Your task to perform on an android device: all mails in gmail Image 0: 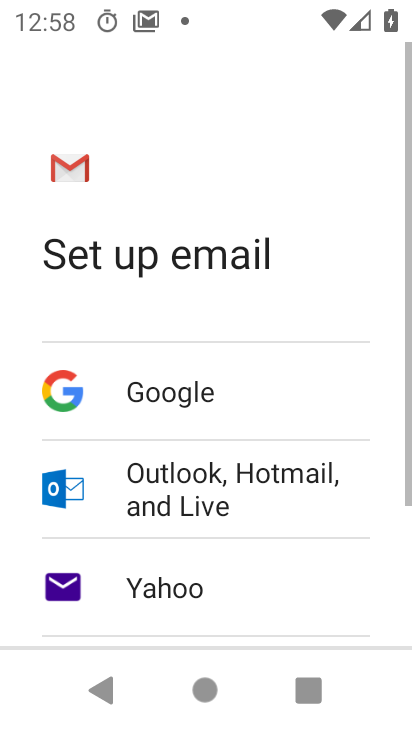
Step 0: press home button
Your task to perform on an android device: all mails in gmail Image 1: 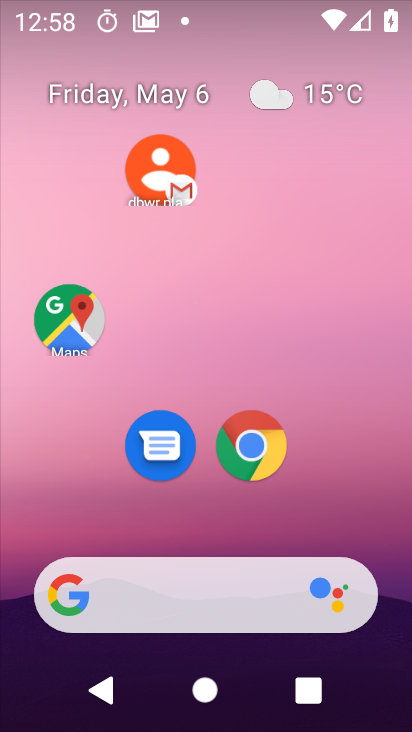
Step 1: drag from (372, 613) to (183, 92)
Your task to perform on an android device: all mails in gmail Image 2: 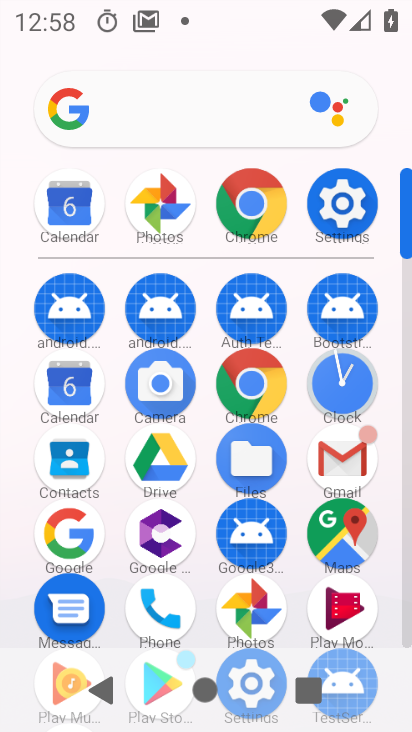
Step 2: click (328, 465)
Your task to perform on an android device: all mails in gmail Image 3: 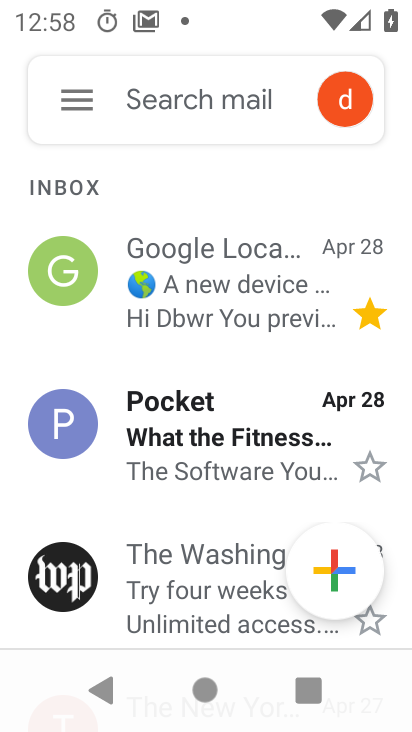
Step 3: click (69, 115)
Your task to perform on an android device: all mails in gmail Image 4: 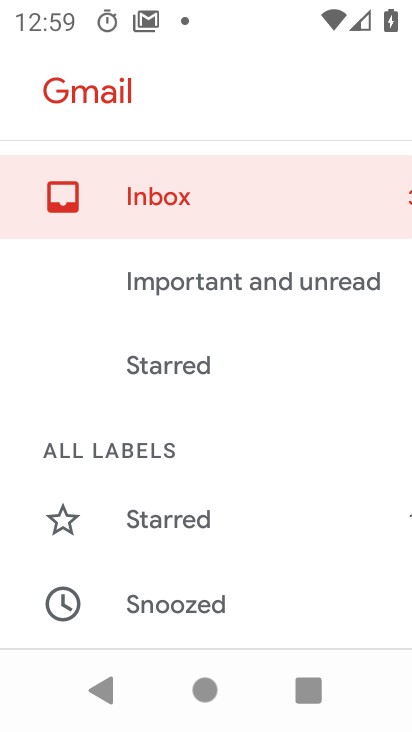
Step 4: drag from (232, 499) to (183, 128)
Your task to perform on an android device: all mails in gmail Image 5: 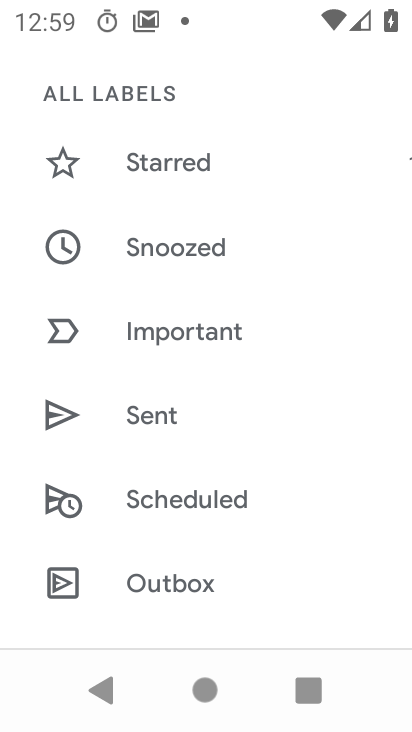
Step 5: drag from (275, 474) to (193, 182)
Your task to perform on an android device: all mails in gmail Image 6: 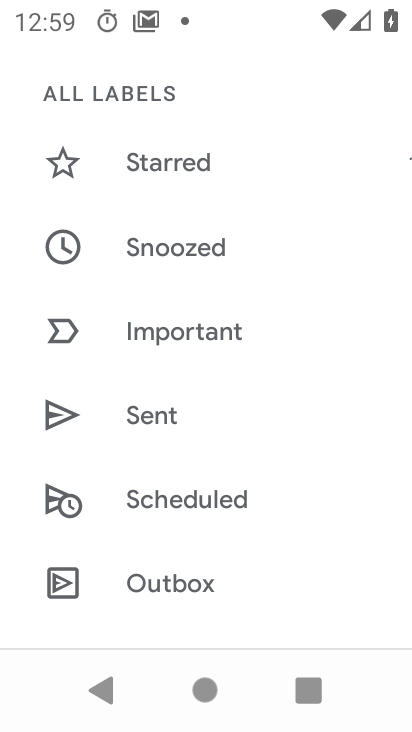
Step 6: drag from (219, 536) to (95, 113)
Your task to perform on an android device: all mails in gmail Image 7: 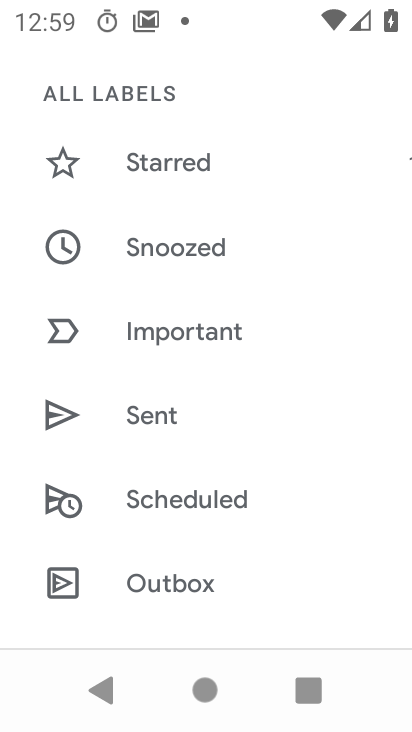
Step 7: drag from (232, 569) to (198, 136)
Your task to perform on an android device: all mails in gmail Image 8: 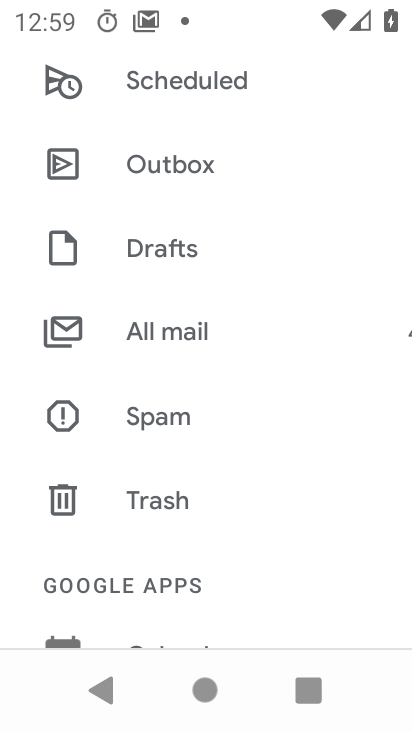
Step 8: drag from (202, 495) to (180, 39)
Your task to perform on an android device: all mails in gmail Image 9: 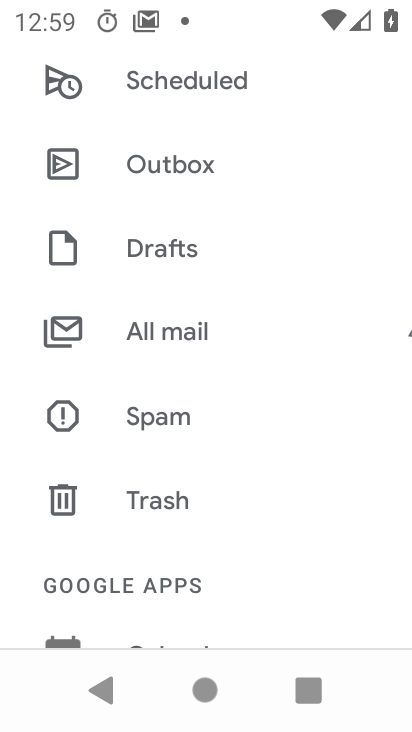
Step 9: click (155, 336)
Your task to perform on an android device: all mails in gmail Image 10: 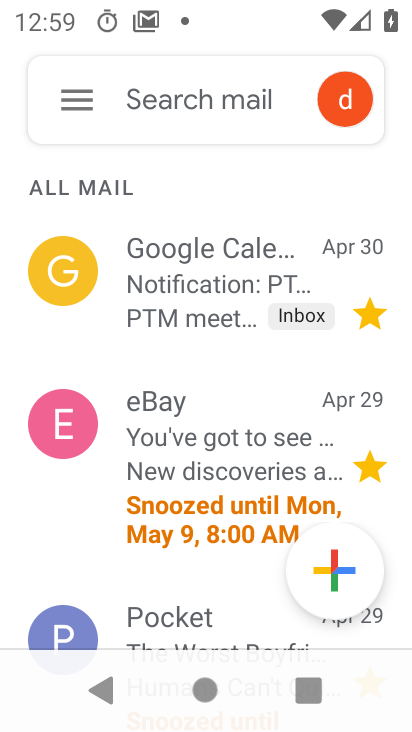
Step 10: task complete